Your task to perform on an android device: turn off translation in the chrome app Image 0: 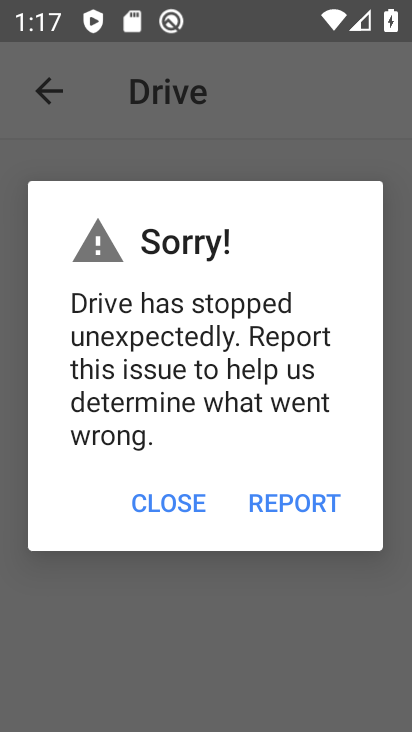
Step 0: press home button
Your task to perform on an android device: turn off translation in the chrome app Image 1: 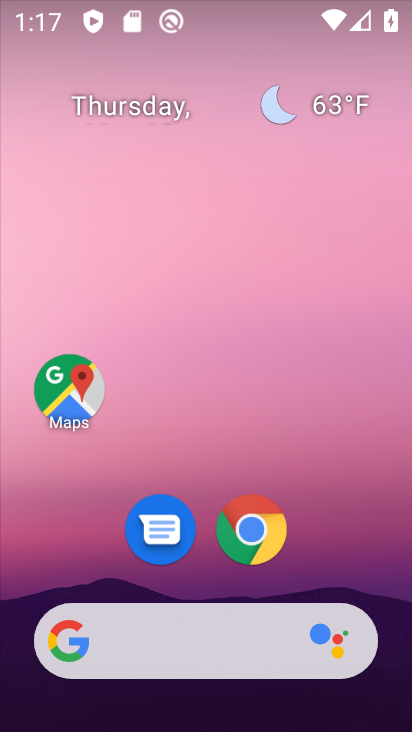
Step 1: click (251, 530)
Your task to perform on an android device: turn off translation in the chrome app Image 2: 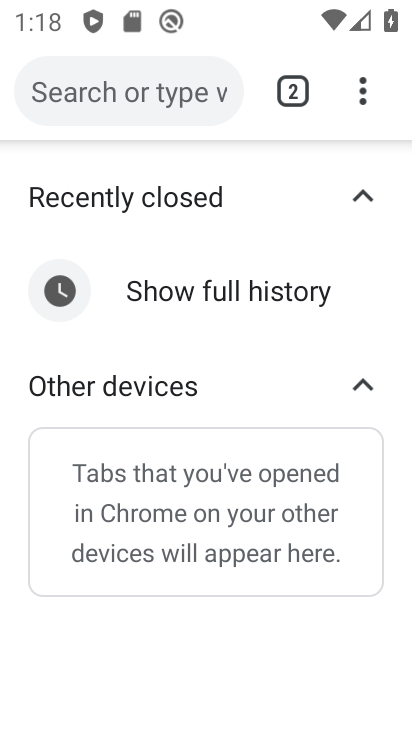
Step 2: click (362, 91)
Your task to perform on an android device: turn off translation in the chrome app Image 3: 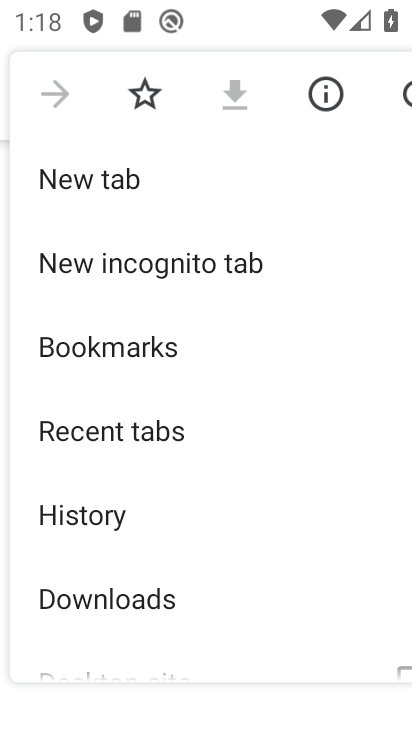
Step 3: drag from (171, 519) to (208, 432)
Your task to perform on an android device: turn off translation in the chrome app Image 4: 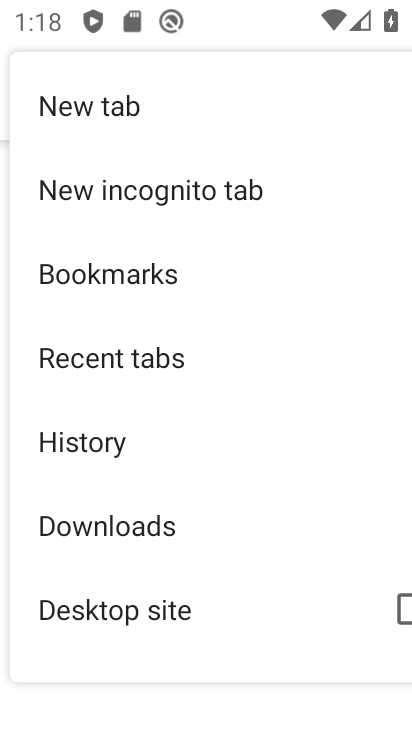
Step 4: drag from (148, 562) to (144, 409)
Your task to perform on an android device: turn off translation in the chrome app Image 5: 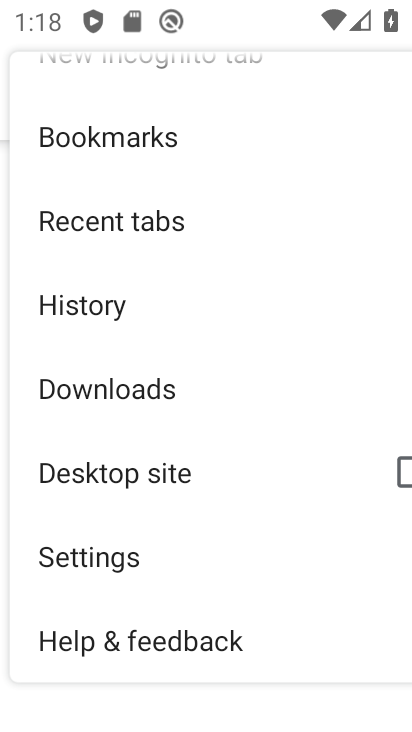
Step 5: click (116, 560)
Your task to perform on an android device: turn off translation in the chrome app Image 6: 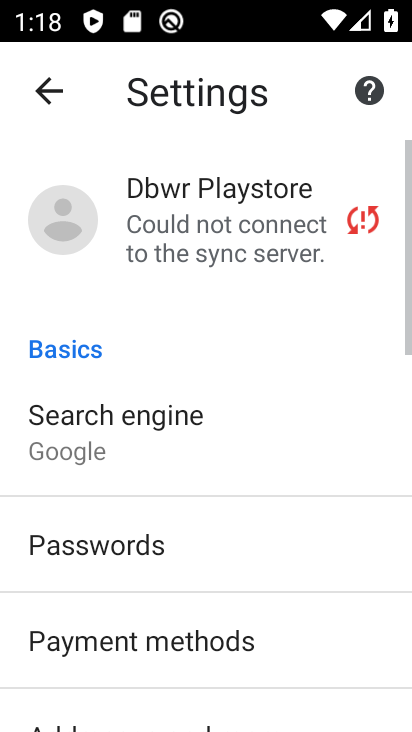
Step 6: drag from (234, 558) to (283, 451)
Your task to perform on an android device: turn off translation in the chrome app Image 7: 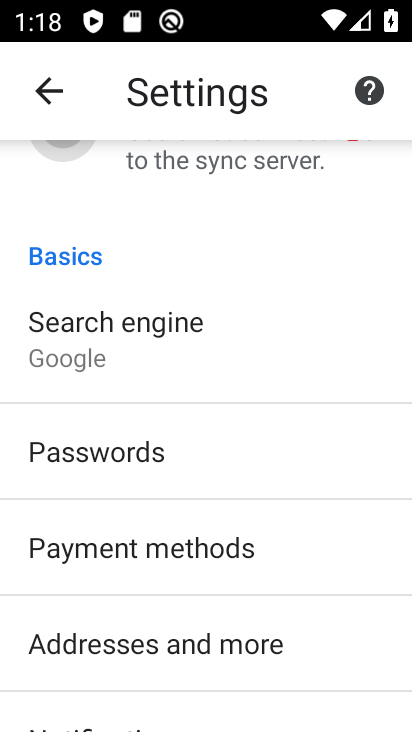
Step 7: drag from (247, 620) to (275, 485)
Your task to perform on an android device: turn off translation in the chrome app Image 8: 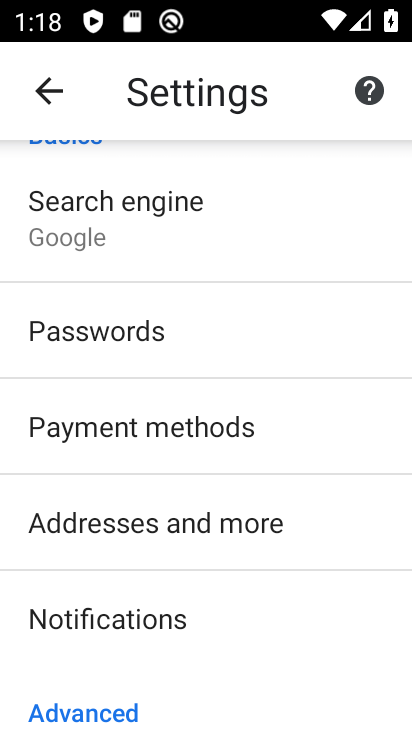
Step 8: drag from (224, 649) to (230, 532)
Your task to perform on an android device: turn off translation in the chrome app Image 9: 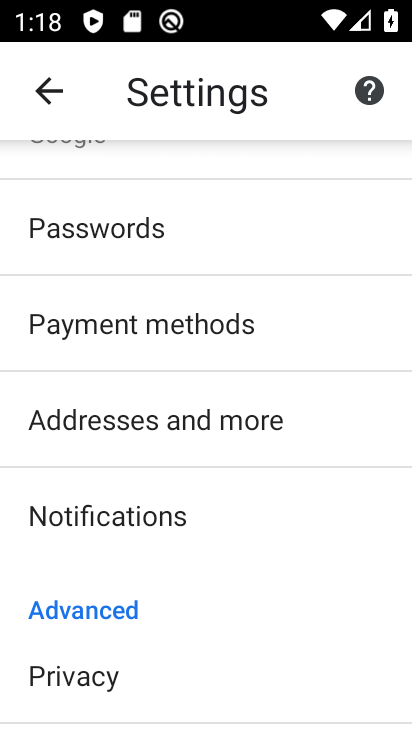
Step 9: drag from (193, 652) to (262, 531)
Your task to perform on an android device: turn off translation in the chrome app Image 10: 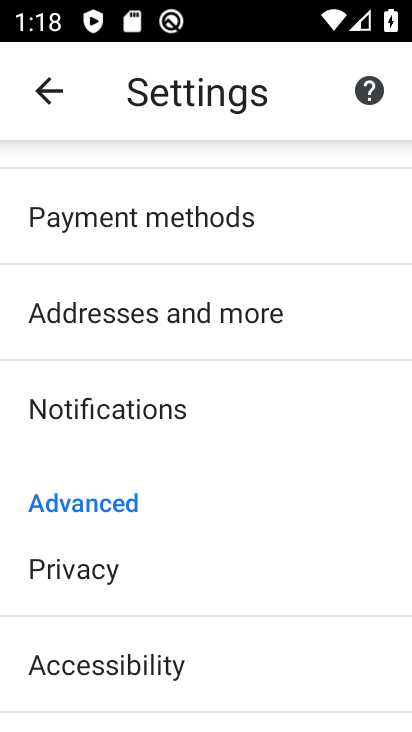
Step 10: drag from (237, 659) to (280, 551)
Your task to perform on an android device: turn off translation in the chrome app Image 11: 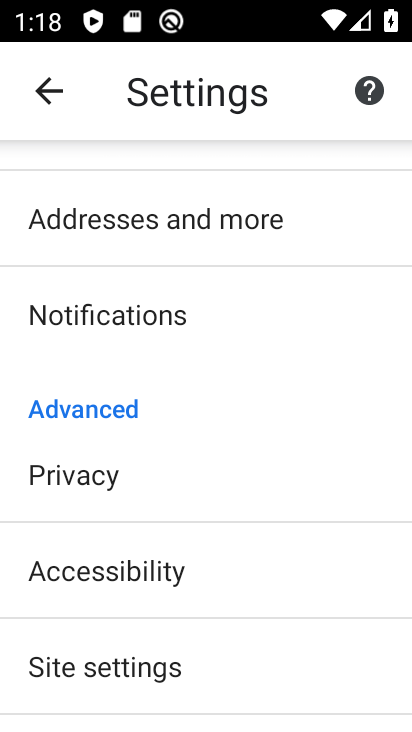
Step 11: drag from (245, 679) to (286, 598)
Your task to perform on an android device: turn off translation in the chrome app Image 12: 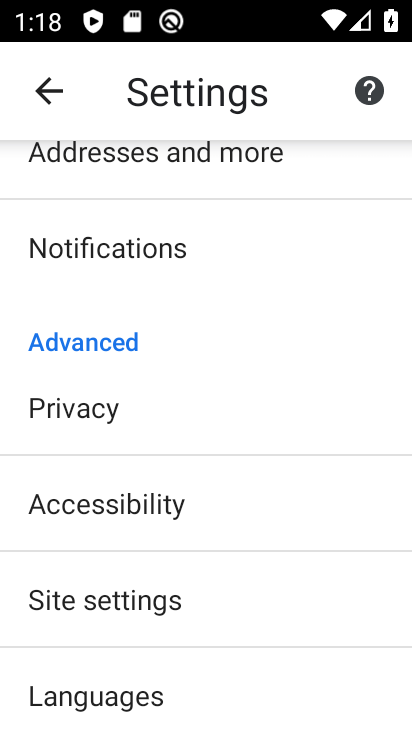
Step 12: drag from (264, 669) to (316, 582)
Your task to perform on an android device: turn off translation in the chrome app Image 13: 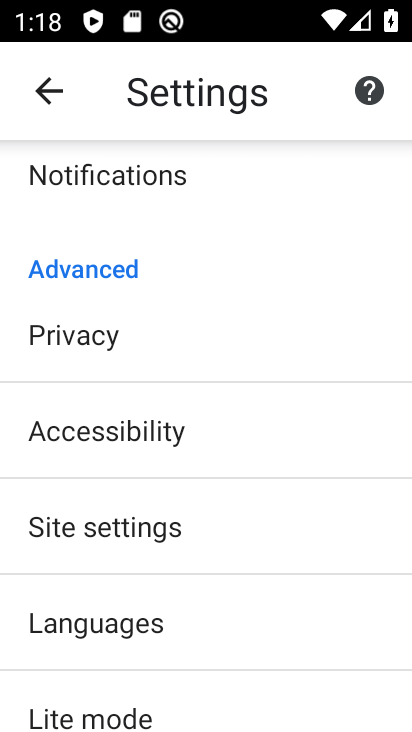
Step 13: click (135, 625)
Your task to perform on an android device: turn off translation in the chrome app Image 14: 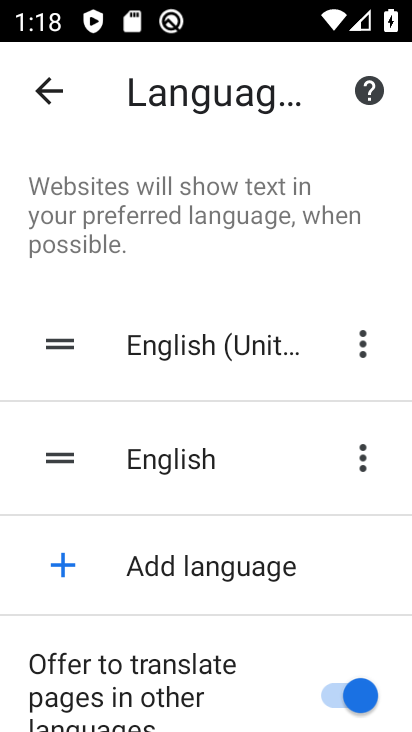
Step 14: click (366, 693)
Your task to perform on an android device: turn off translation in the chrome app Image 15: 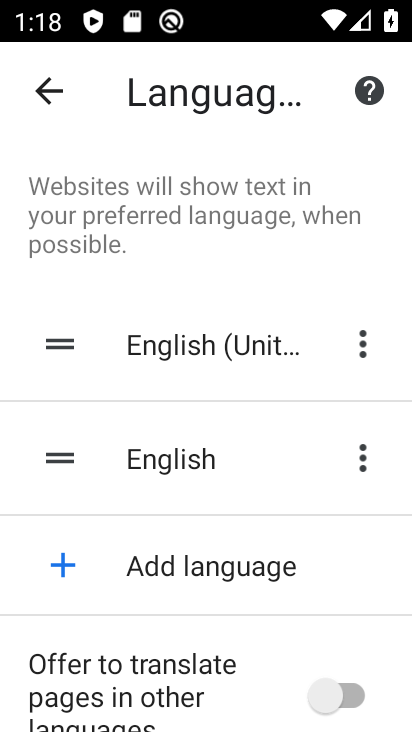
Step 15: task complete